Your task to perform on an android device: find snoozed emails in the gmail app Image 0: 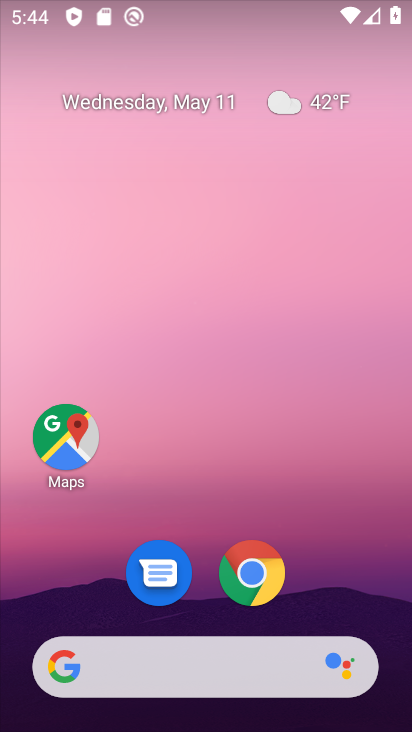
Step 0: drag from (314, 603) to (246, 164)
Your task to perform on an android device: find snoozed emails in the gmail app Image 1: 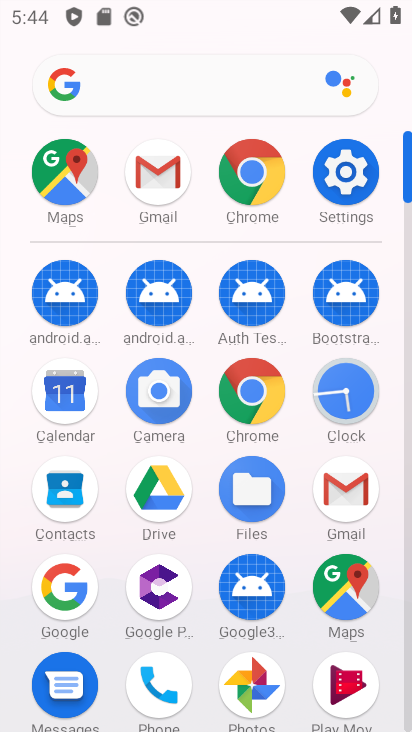
Step 1: click (346, 510)
Your task to perform on an android device: find snoozed emails in the gmail app Image 2: 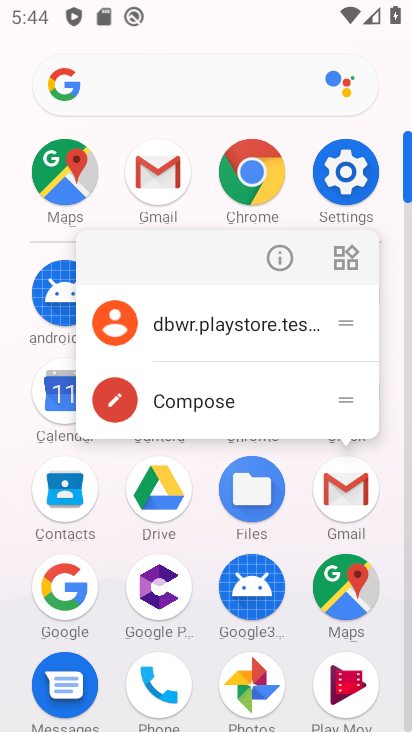
Step 2: click (344, 476)
Your task to perform on an android device: find snoozed emails in the gmail app Image 3: 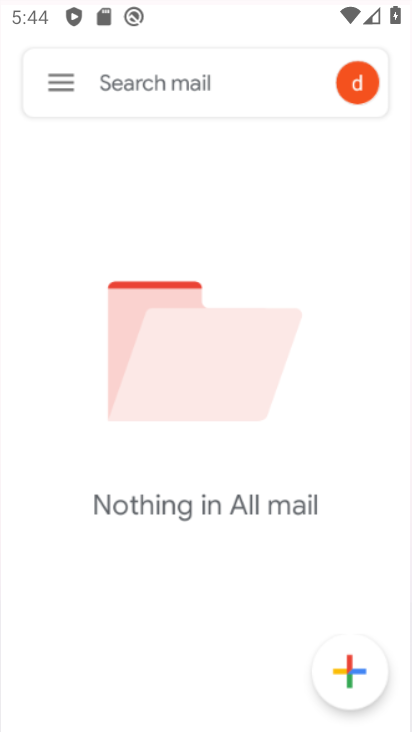
Step 3: click (356, 498)
Your task to perform on an android device: find snoozed emails in the gmail app Image 4: 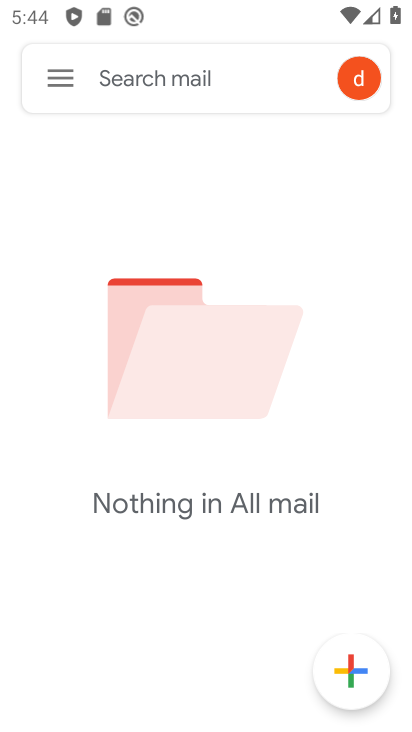
Step 4: click (63, 77)
Your task to perform on an android device: find snoozed emails in the gmail app Image 5: 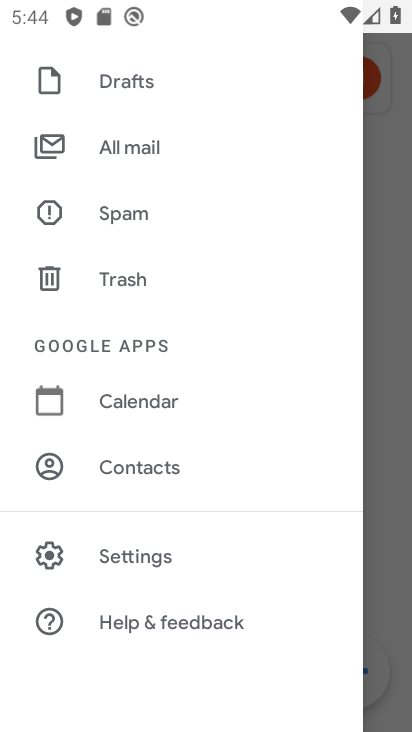
Step 5: drag from (175, 426) to (181, 527)
Your task to perform on an android device: find snoozed emails in the gmail app Image 6: 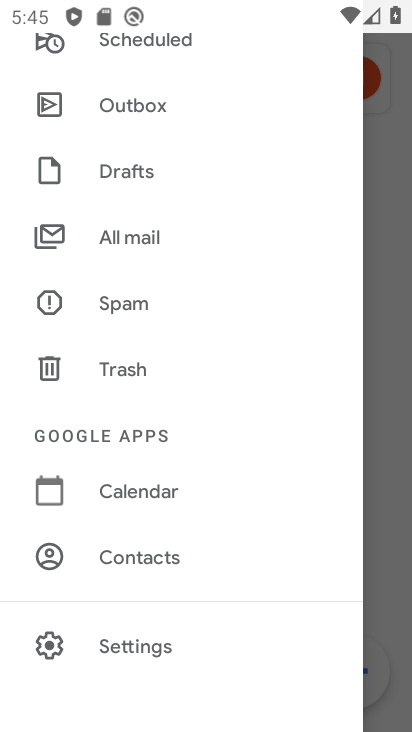
Step 6: drag from (190, 203) to (168, 545)
Your task to perform on an android device: find snoozed emails in the gmail app Image 7: 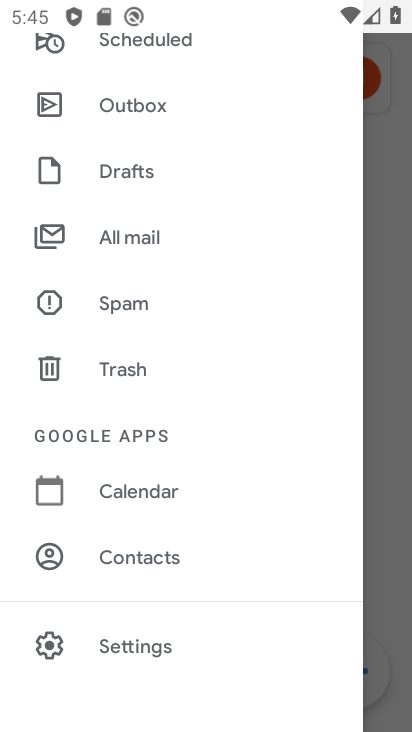
Step 7: drag from (179, 178) to (179, 598)
Your task to perform on an android device: find snoozed emails in the gmail app Image 8: 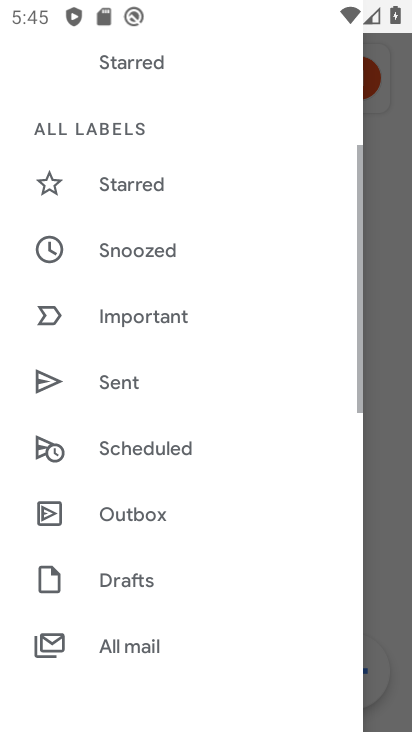
Step 8: click (201, 670)
Your task to perform on an android device: find snoozed emails in the gmail app Image 9: 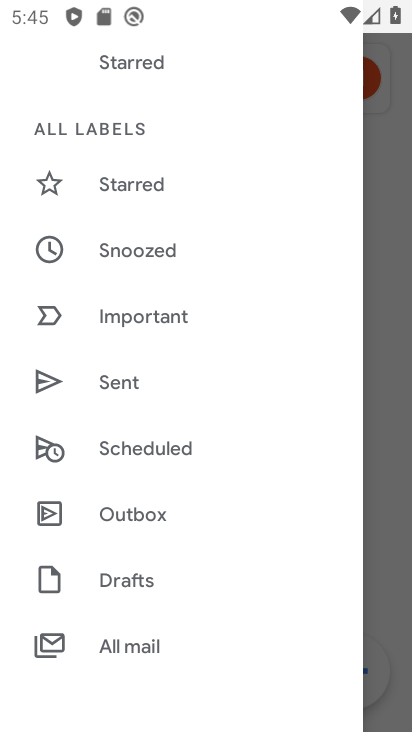
Step 9: click (144, 252)
Your task to perform on an android device: find snoozed emails in the gmail app Image 10: 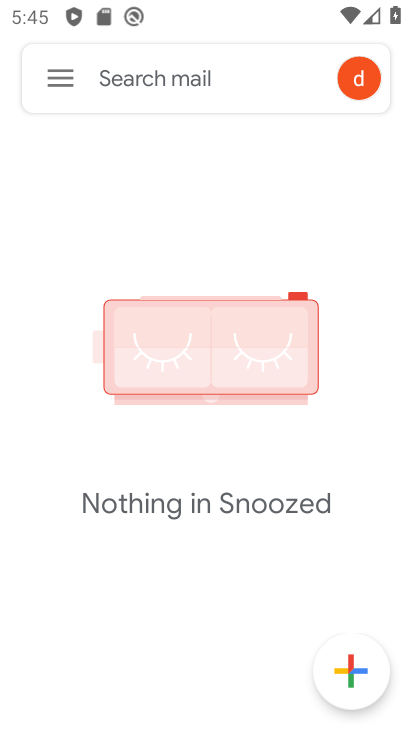
Step 10: task complete